Your task to perform on an android device: Go to notification settings Image 0: 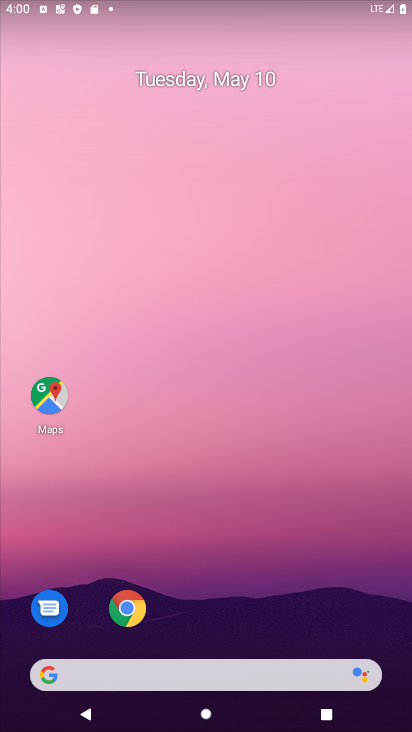
Step 0: drag from (400, 647) to (287, 79)
Your task to perform on an android device: Go to notification settings Image 1: 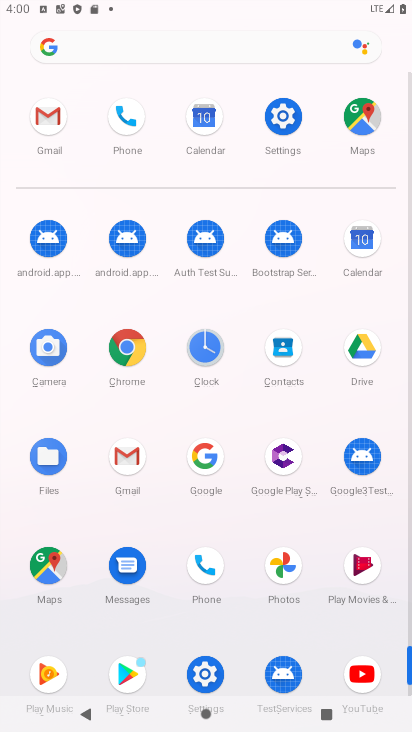
Step 1: click (205, 672)
Your task to perform on an android device: Go to notification settings Image 2: 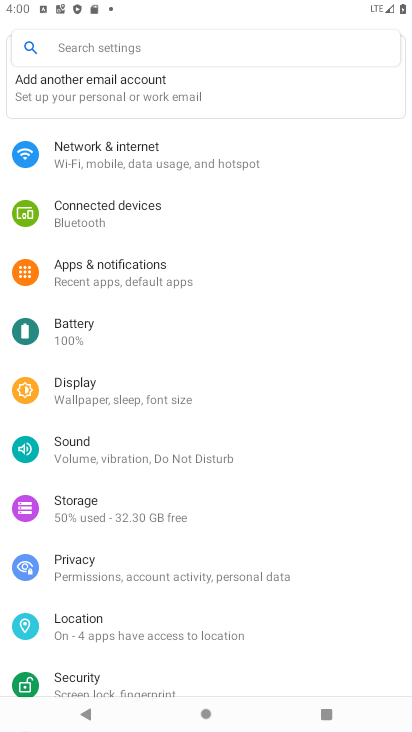
Step 2: click (94, 264)
Your task to perform on an android device: Go to notification settings Image 3: 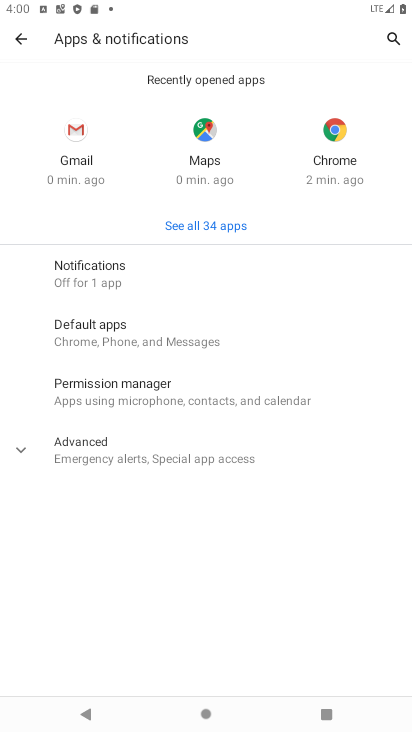
Step 3: click (79, 274)
Your task to perform on an android device: Go to notification settings Image 4: 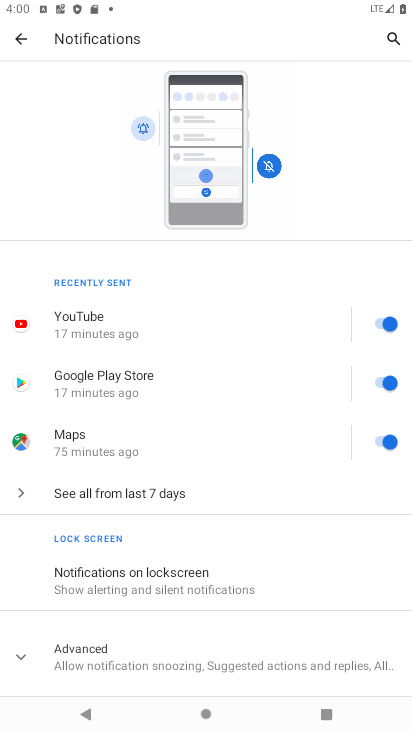
Step 4: task complete